Your task to perform on an android device: turn on sleep mode Image 0: 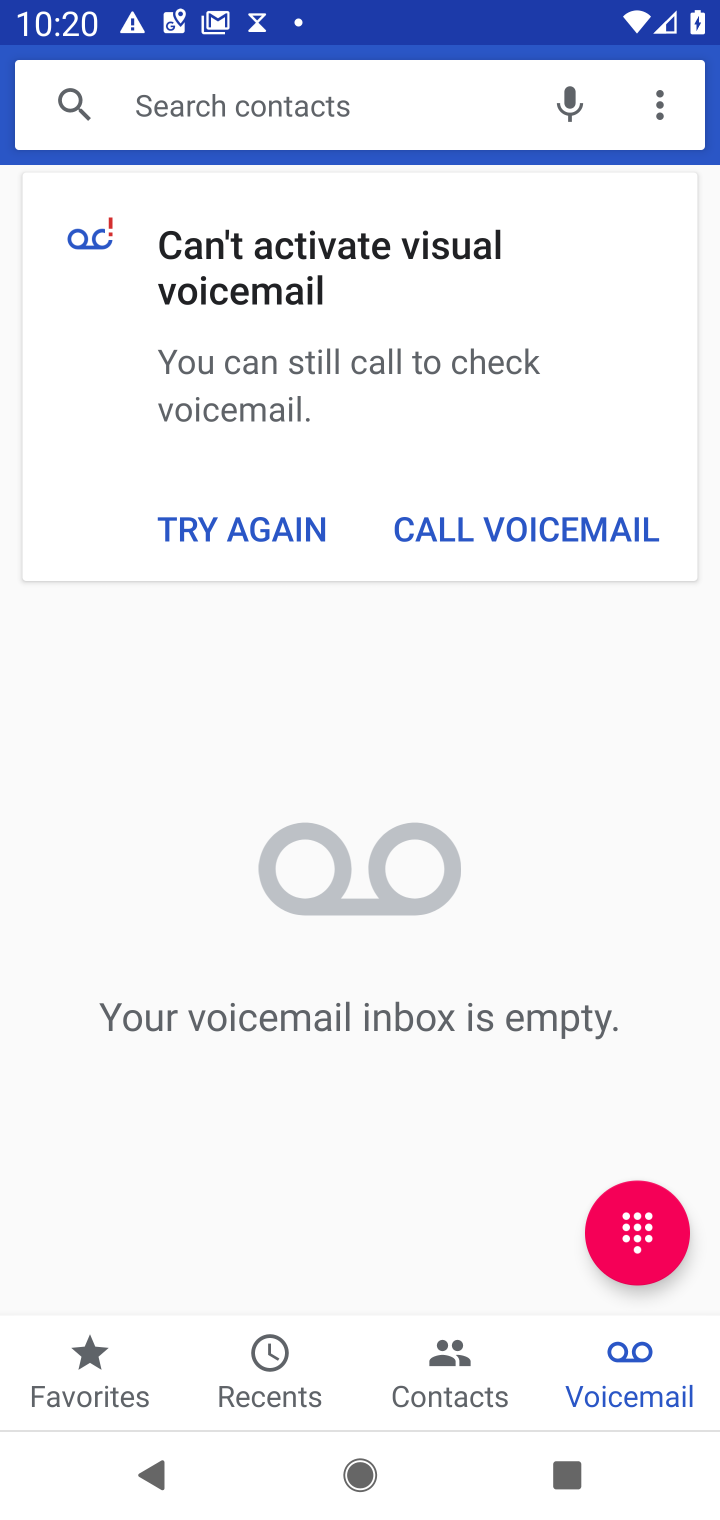
Step 0: press home button
Your task to perform on an android device: turn on sleep mode Image 1: 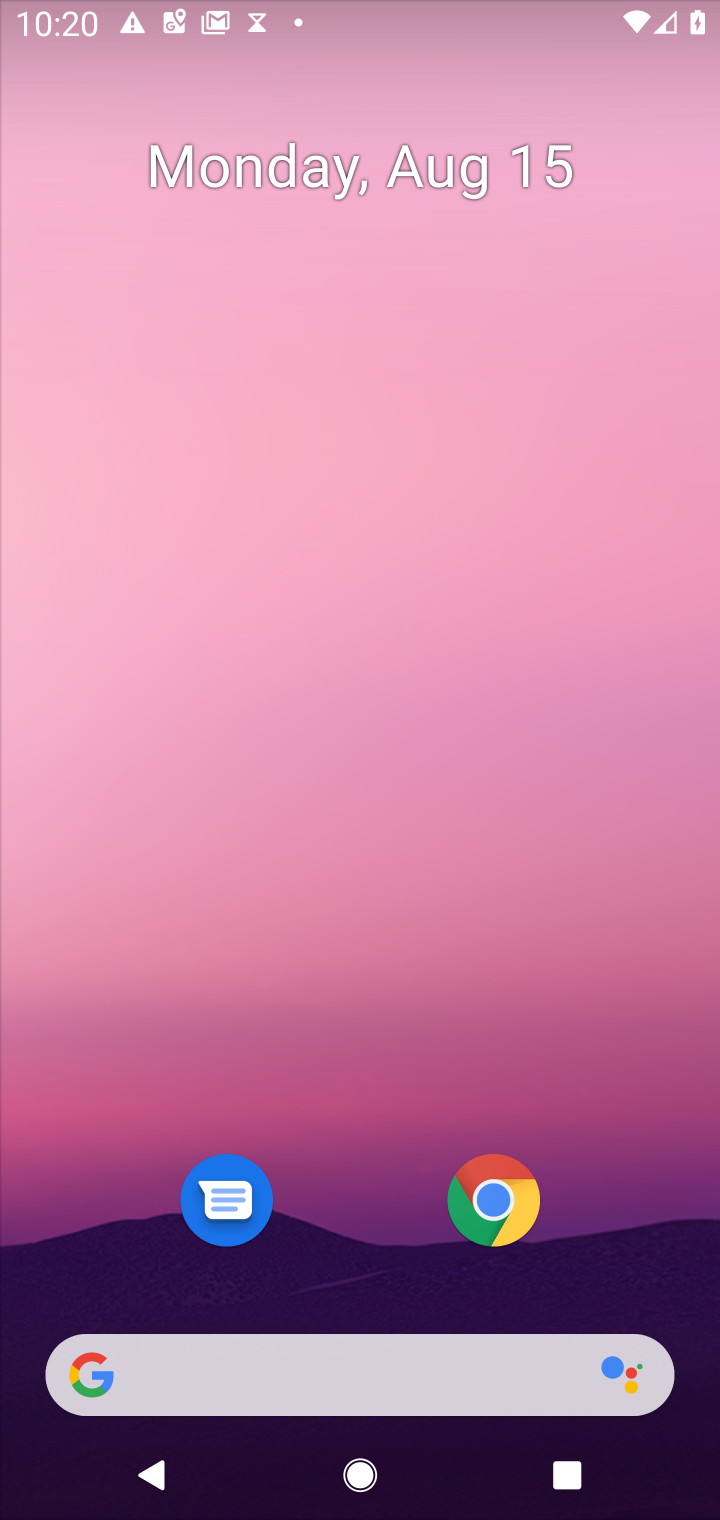
Step 1: drag from (361, 1251) to (333, 210)
Your task to perform on an android device: turn on sleep mode Image 2: 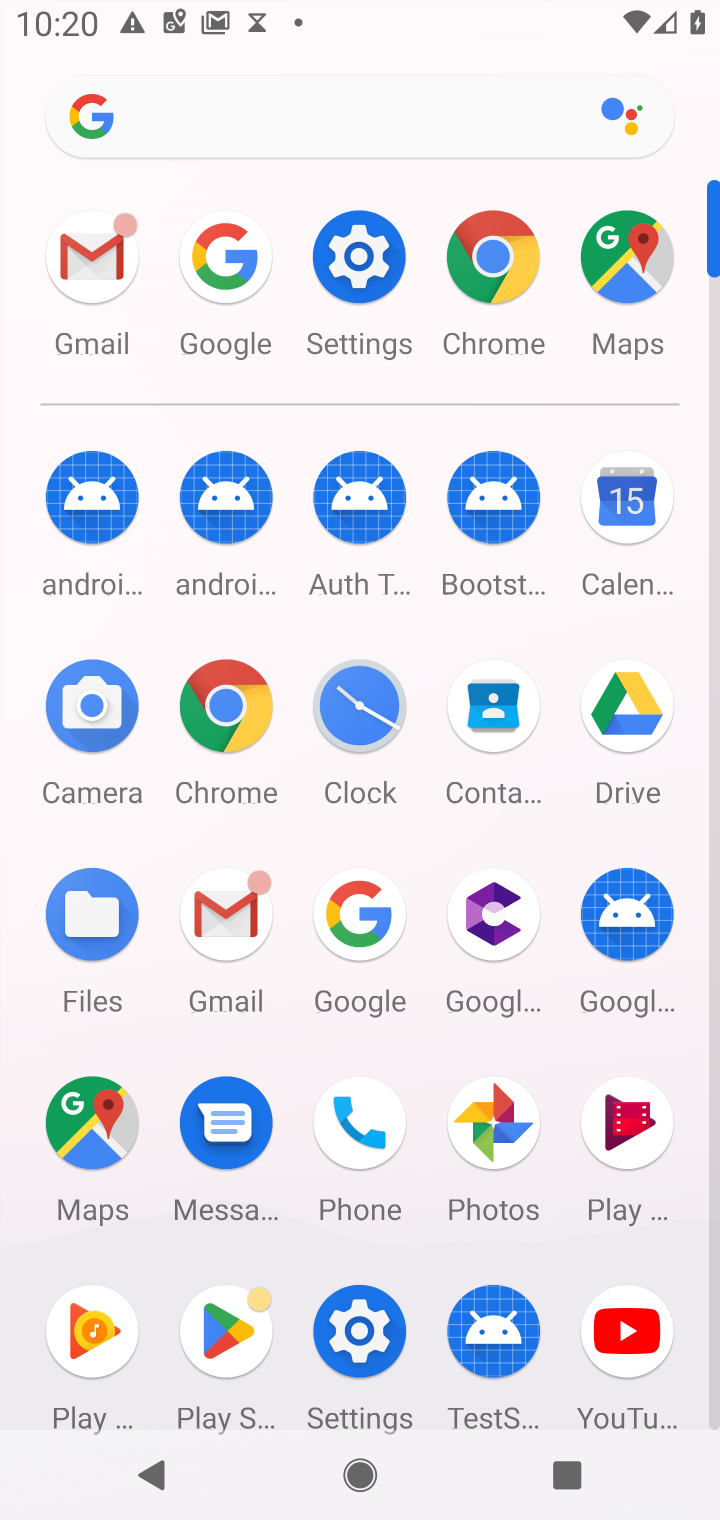
Step 2: click (385, 284)
Your task to perform on an android device: turn on sleep mode Image 3: 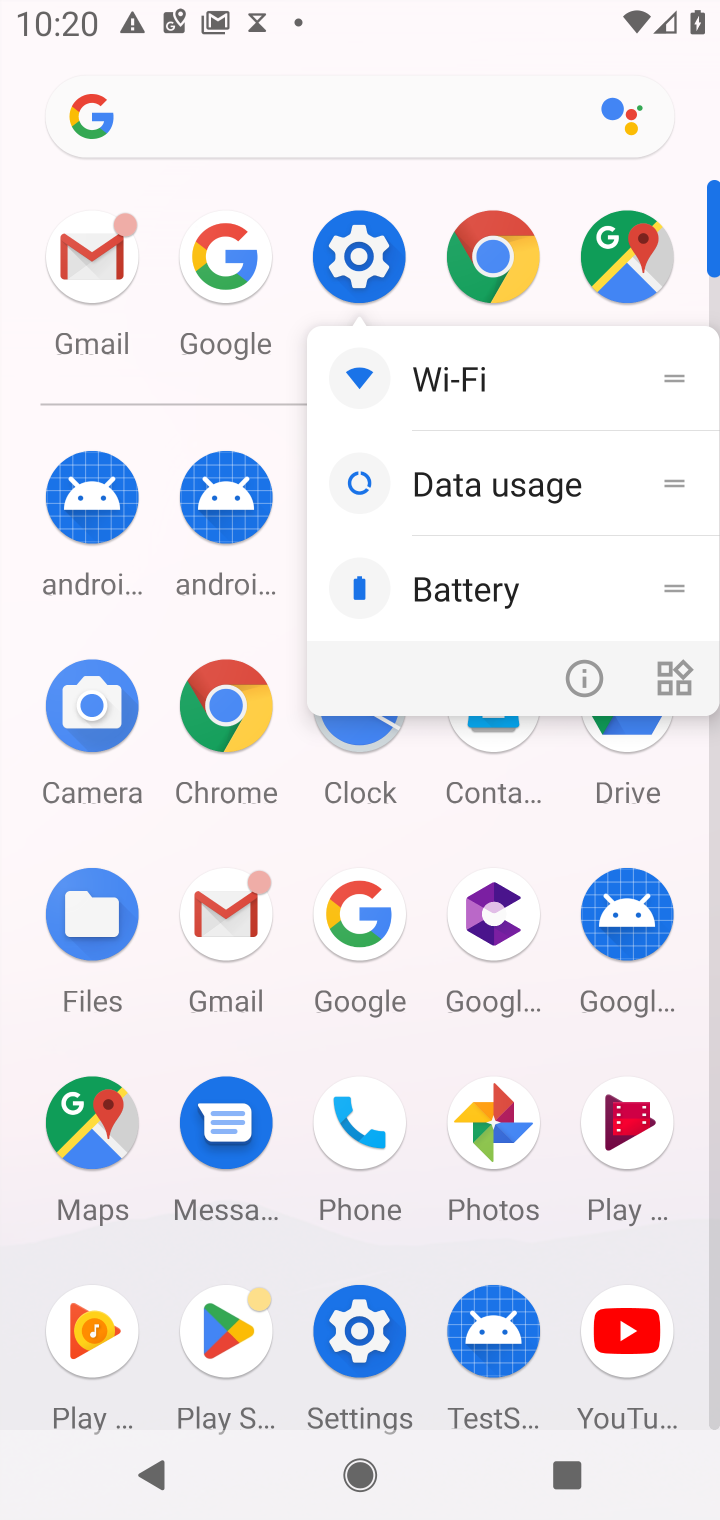
Step 3: click (340, 245)
Your task to perform on an android device: turn on sleep mode Image 4: 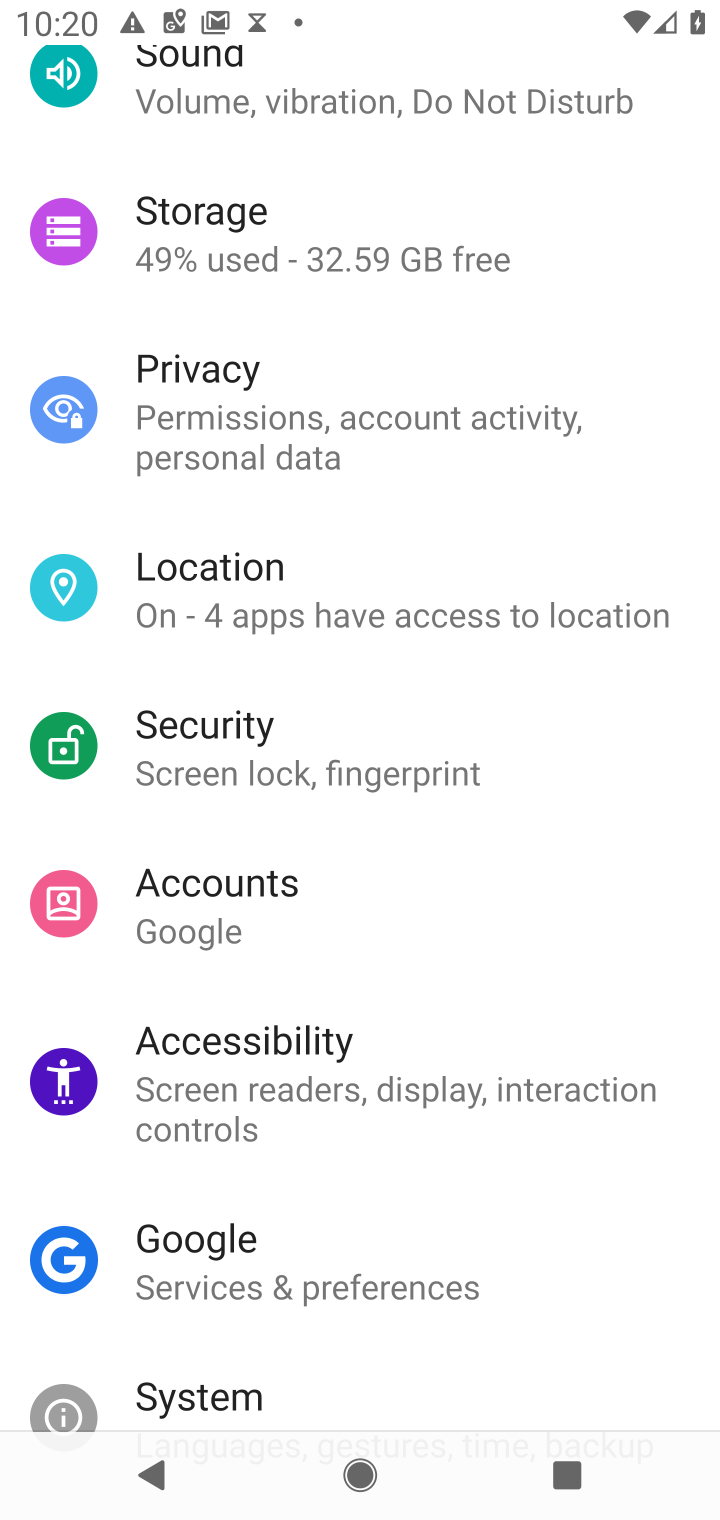
Step 4: drag from (330, 400) to (394, 1228)
Your task to perform on an android device: turn on sleep mode Image 5: 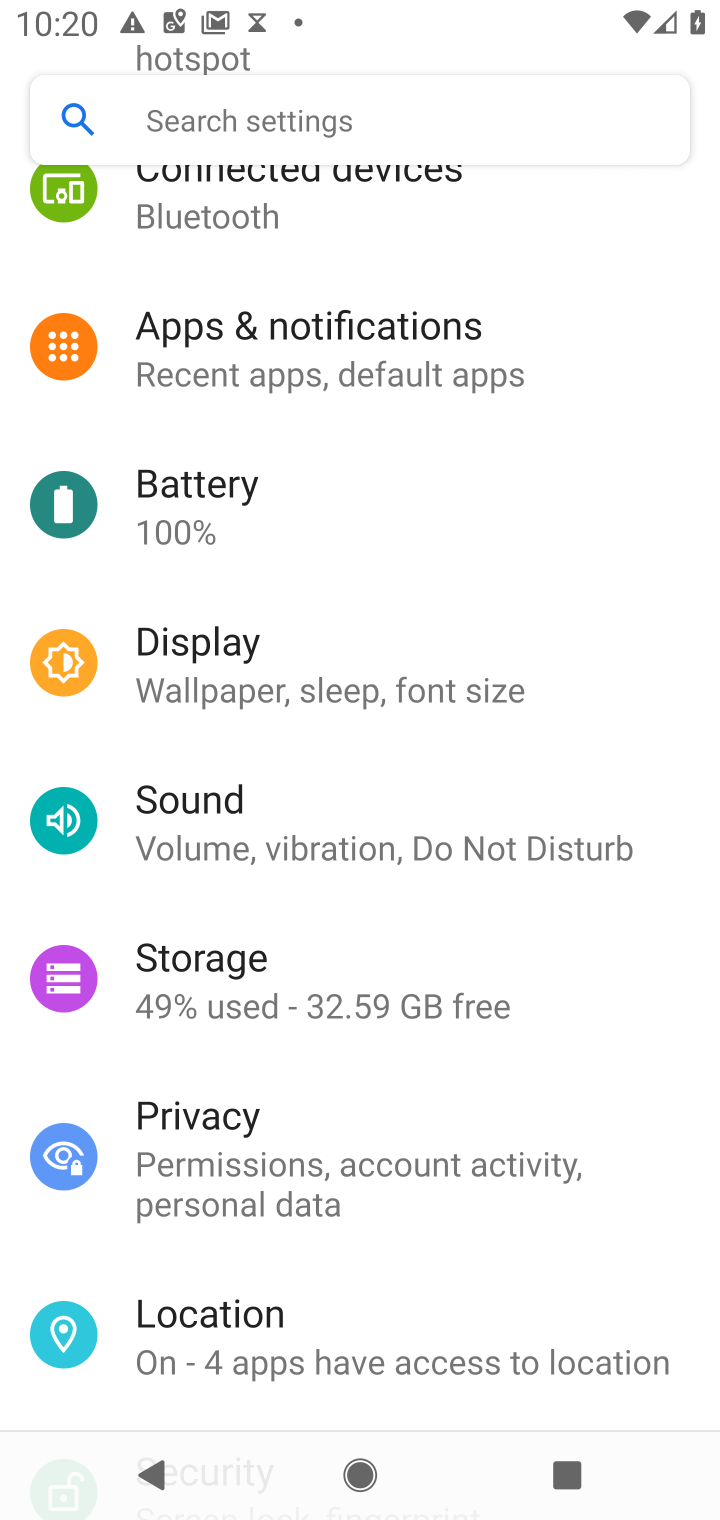
Step 5: click (330, 653)
Your task to perform on an android device: turn on sleep mode Image 6: 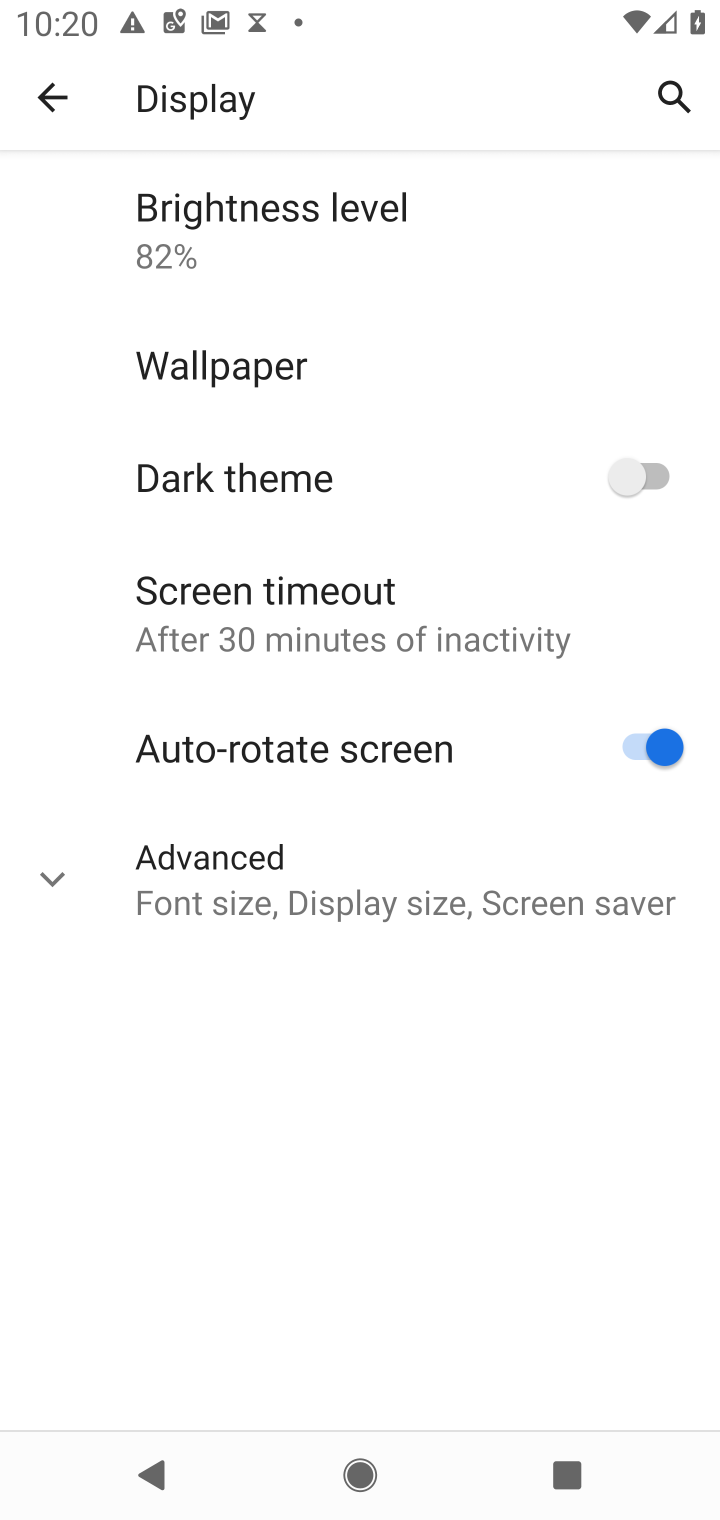
Step 6: click (336, 584)
Your task to perform on an android device: turn on sleep mode Image 7: 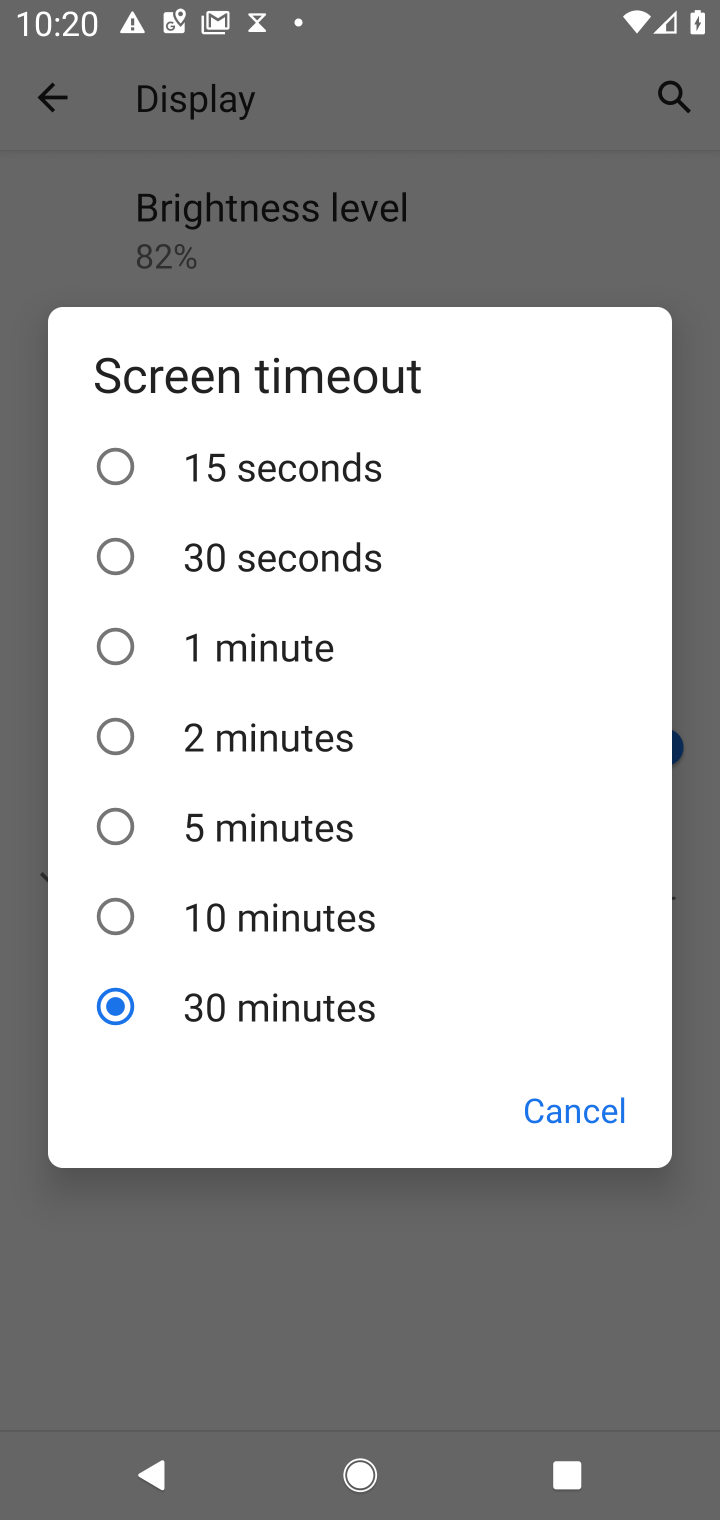
Step 7: click (233, 533)
Your task to perform on an android device: turn on sleep mode Image 8: 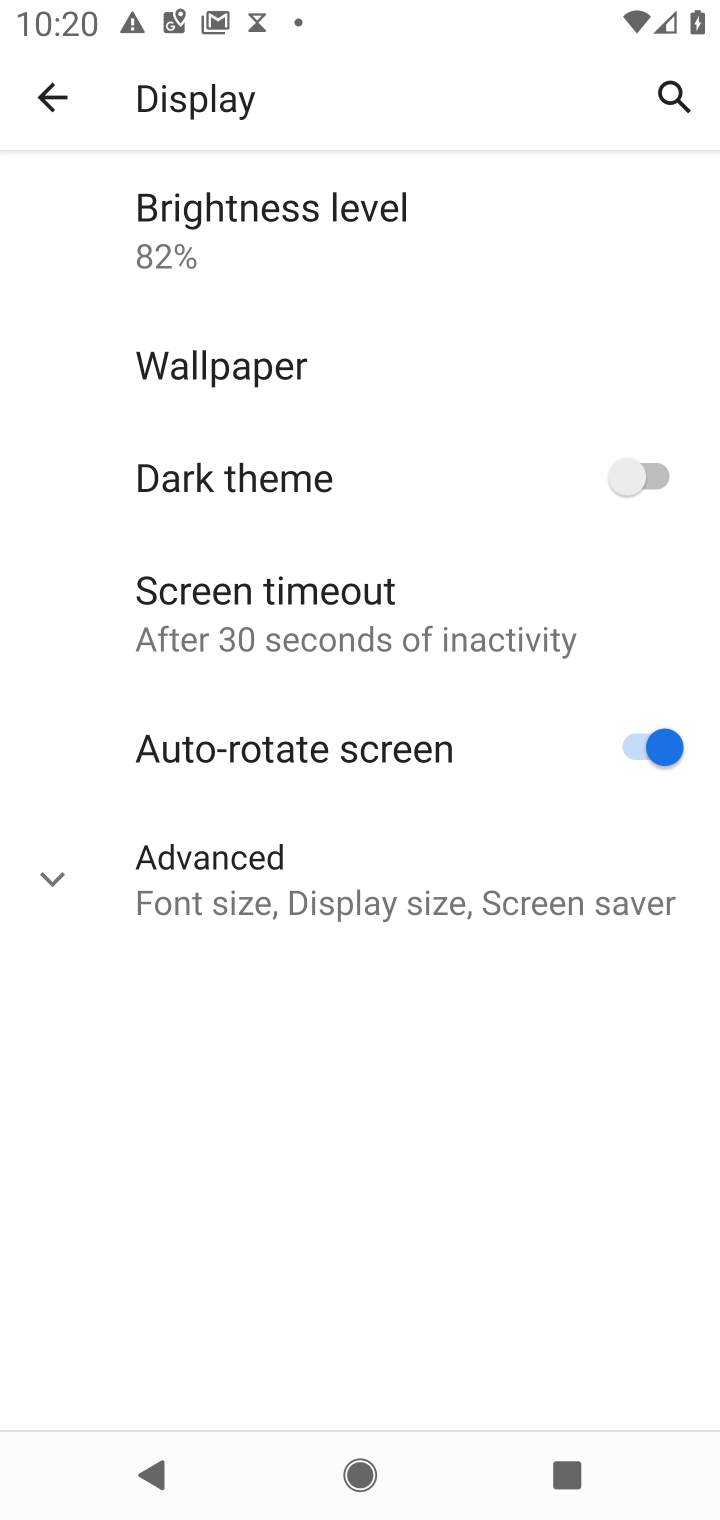
Step 8: task complete